Your task to perform on an android device: Is it going to rain tomorrow? Image 0: 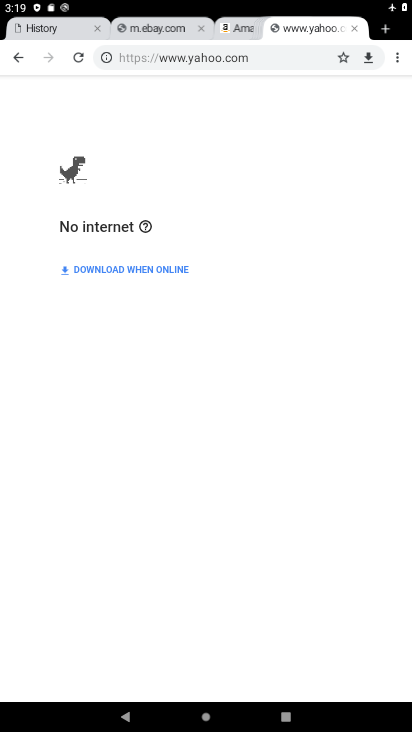
Step 0: click (387, 33)
Your task to perform on an android device: Is it going to rain tomorrow? Image 1: 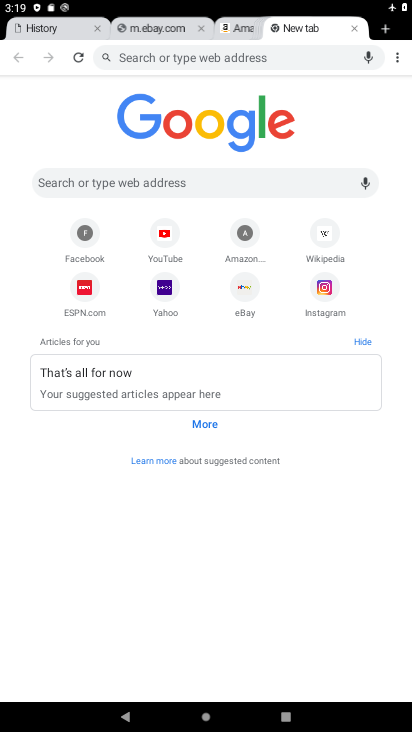
Step 1: click (241, 50)
Your task to perform on an android device: Is it going to rain tomorrow? Image 2: 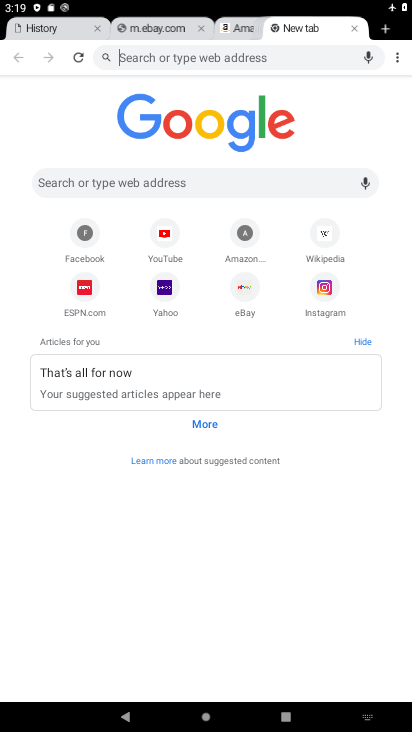
Step 2: type "Is it going to rain tomorrow "
Your task to perform on an android device: Is it going to rain tomorrow? Image 3: 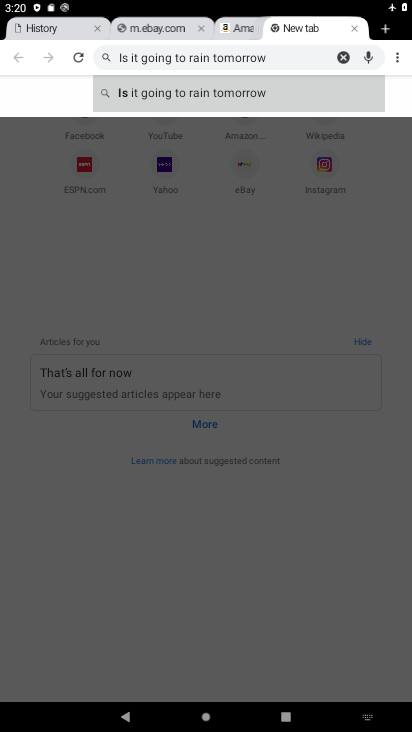
Step 3: click (244, 84)
Your task to perform on an android device: Is it going to rain tomorrow? Image 4: 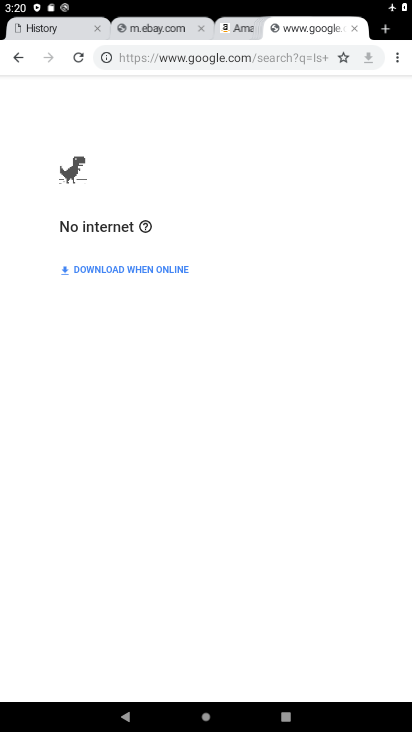
Step 4: task complete